Your task to perform on an android device: turn notification dots on Image 0: 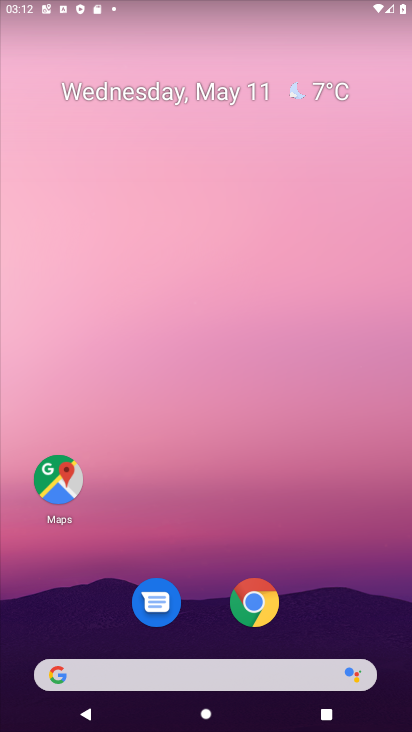
Step 0: drag from (297, 618) to (282, 326)
Your task to perform on an android device: turn notification dots on Image 1: 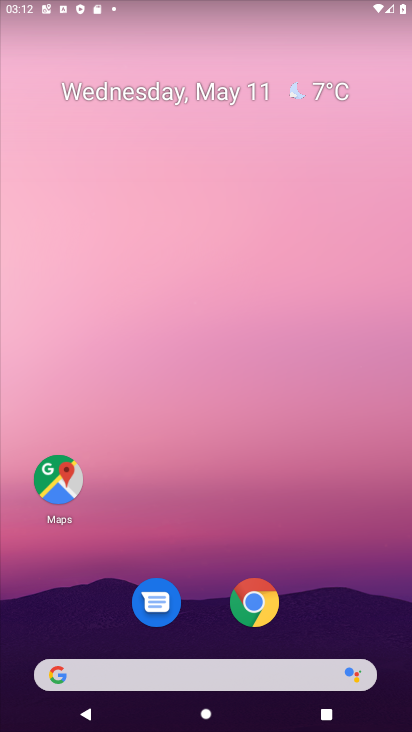
Step 1: drag from (341, 605) to (243, 280)
Your task to perform on an android device: turn notification dots on Image 2: 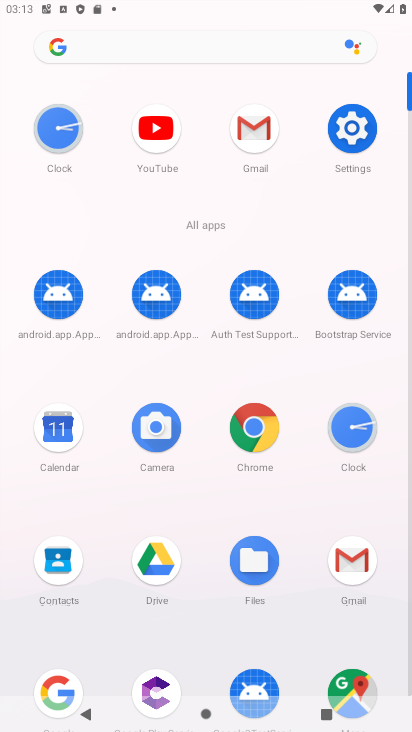
Step 2: click (355, 137)
Your task to perform on an android device: turn notification dots on Image 3: 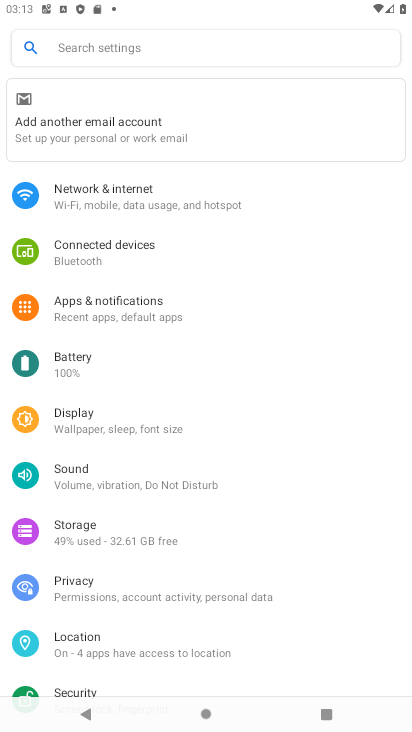
Step 3: click (87, 300)
Your task to perform on an android device: turn notification dots on Image 4: 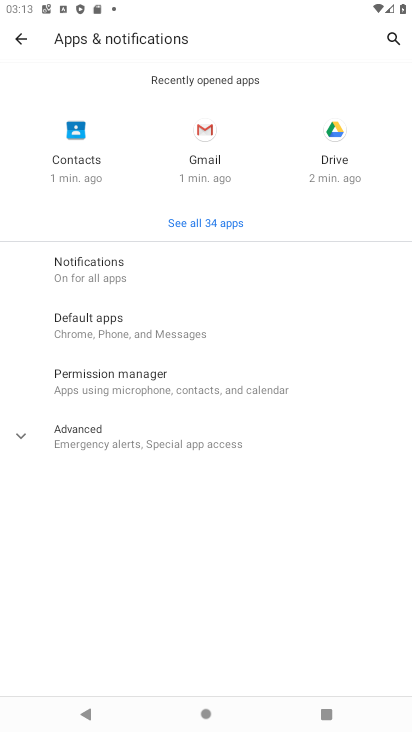
Step 4: click (116, 262)
Your task to perform on an android device: turn notification dots on Image 5: 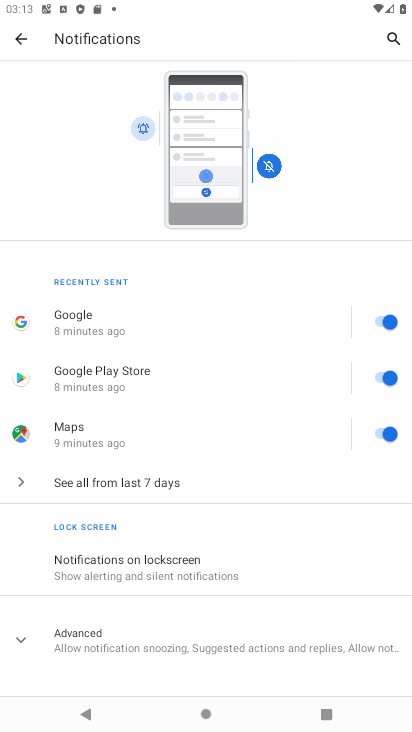
Step 5: drag from (200, 591) to (189, 243)
Your task to perform on an android device: turn notification dots on Image 6: 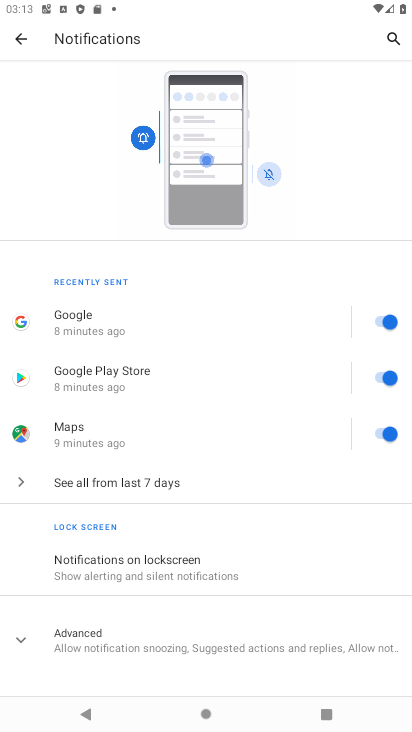
Step 6: click (207, 628)
Your task to perform on an android device: turn notification dots on Image 7: 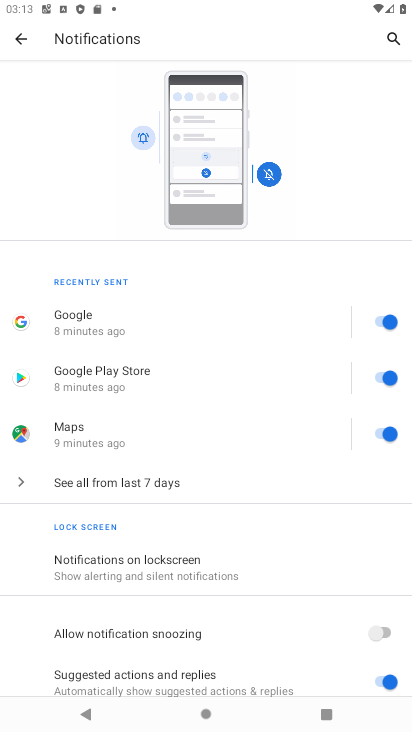
Step 7: task complete